Your task to perform on an android device: find photos in the google photos app Image 0: 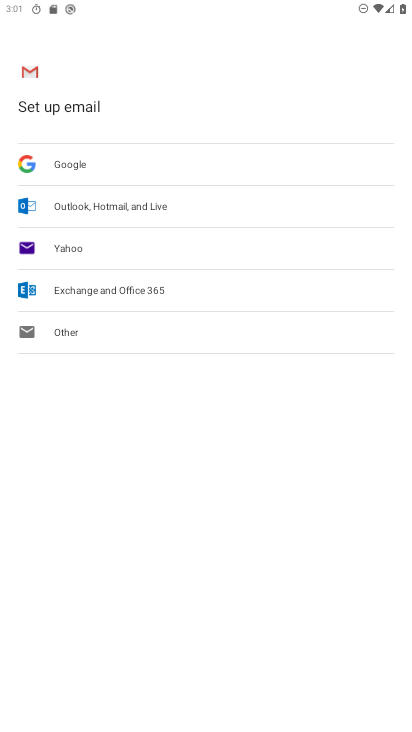
Step 0: press home button
Your task to perform on an android device: find photos in the google photos app Image 1: 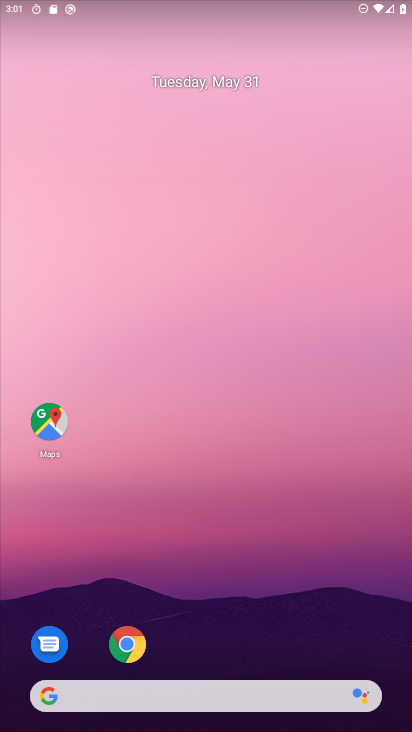
Step 1: drag from (391, 693) to (331, 142)
Your task to perform on an android device: find photos in the google photos app Image 2: 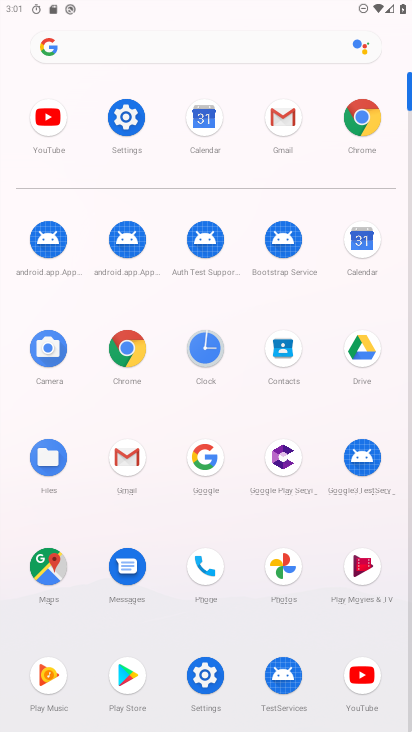
Step 2: click (275, 555)
Your task to perform on an android device: find photos in the google photos app Image 3: 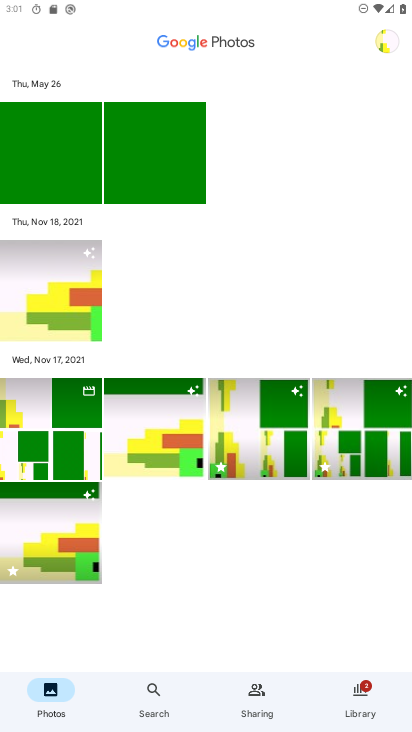
Step 3: click (25, 433)
Your task to perform on an android device: find photos in the google photos app Image 4: 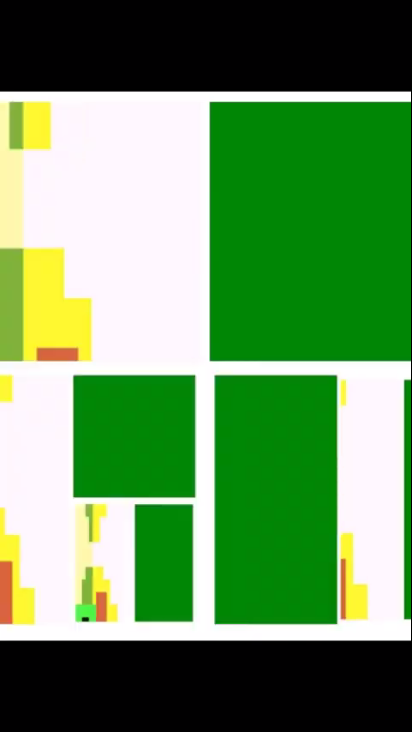
Step 4: task complete